Your task to perform on an android device: read, delete, or share a saved page in the chrome app Image 0: 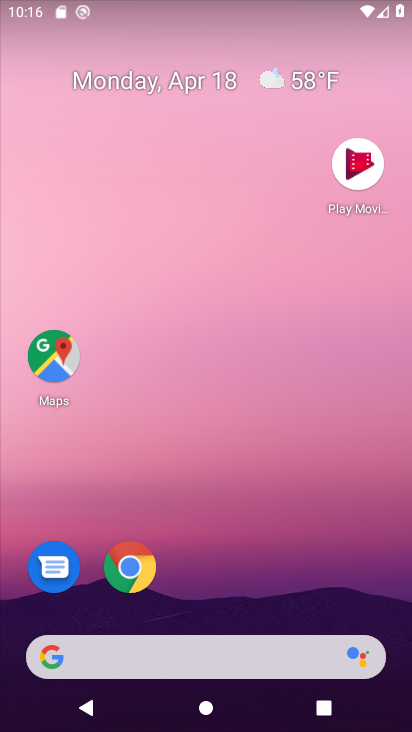
Step 0: click (138, 560)
Your task to perform on an android device: read, delete, or share a saved page in the chrome app Image 1: 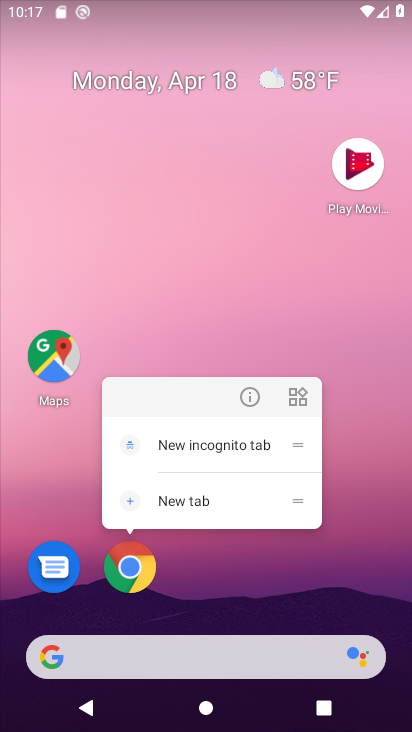
Step 1: click (196, 546)
Your task to perform on an android device: read, delete, or share a saved page in the chrome app Image 2: 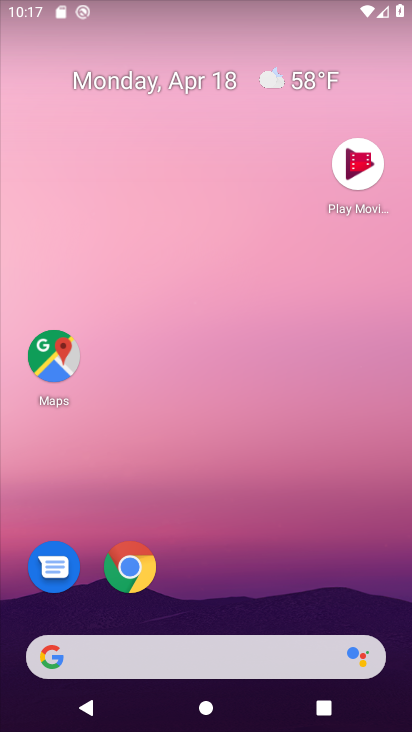
Step 2: click (136, 562)
Your task to perform on an android device: read, delete, or share a saved page in the chrome app Image 3: 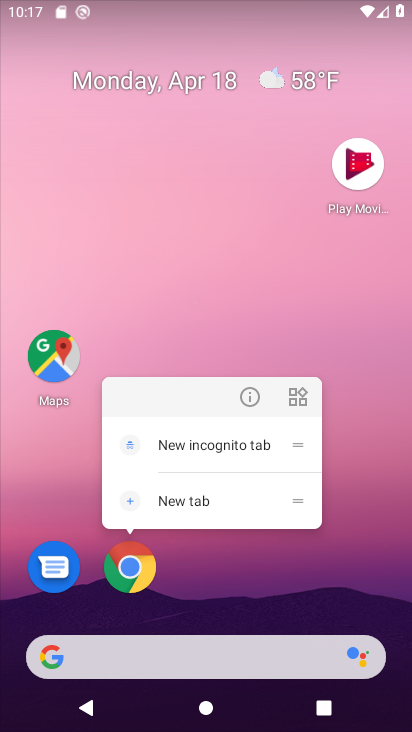
Step 3: click (255, 384)
Your task to perform on an android device: read, delete, or share a saved page in the chrome app Image 4: 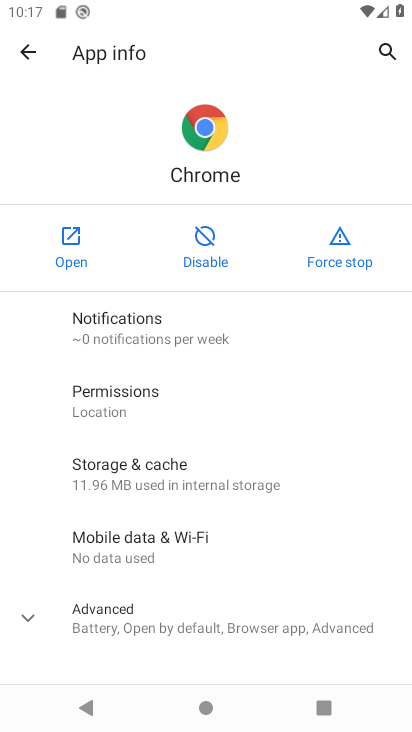
Step 4: click (71, 248)
Your task to perform on an android device: read, delete, or share a saved page in the chrome app Image 5: 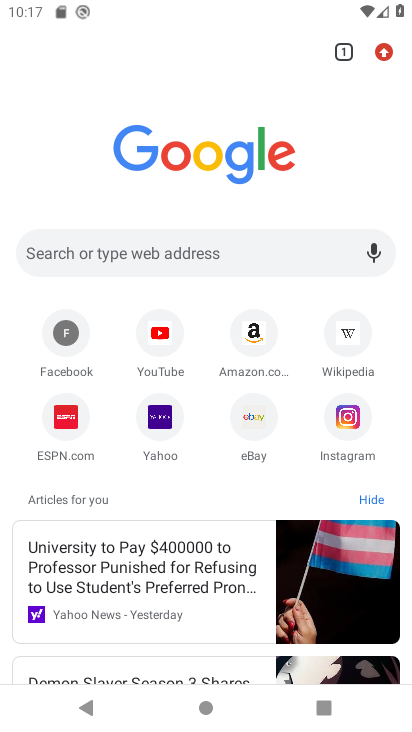
Step 5: click (389, 50)
Your task to perform on an android device: read, delete, or share a saved page in the chrome app Image 6: 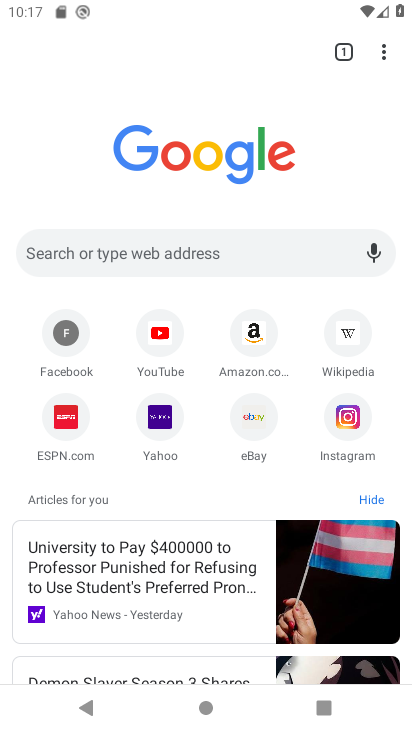
Step 6: click (387, 57)
Your task to perform on an android device: read, delete, or share a saved page in the chrome app Image 7: 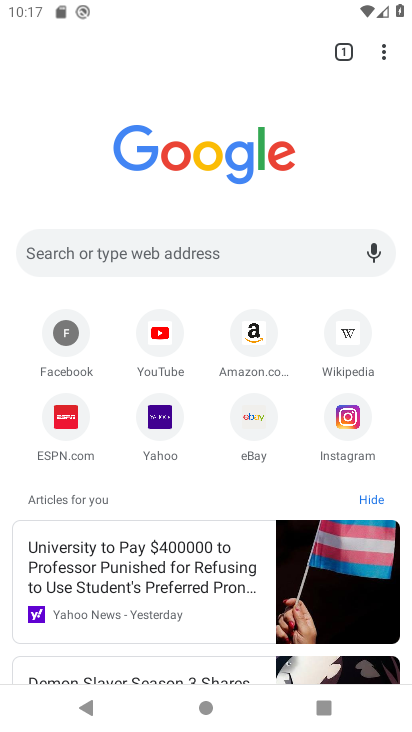
Step 7: click (379, 43)
Your task to perform on an android device: read, delete, or share a saved page in the chrome app Image 8: 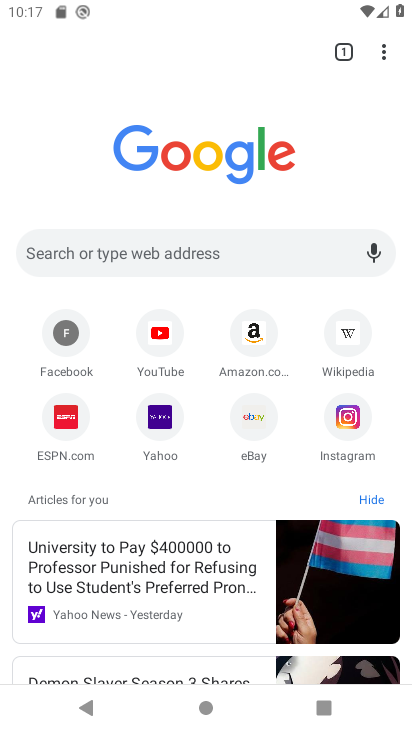
Step 8: click (391, 51)
Your task to perform on an android device: read, delete, or share a saved page in the chrome app Image 9: 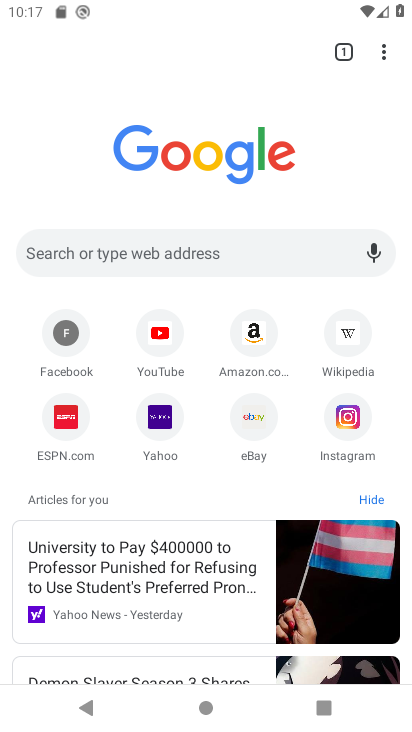
Step 9: click (384, 49)
Your task to perform on an android device: read, delete, or share a saved page in the chrome app Image 10: 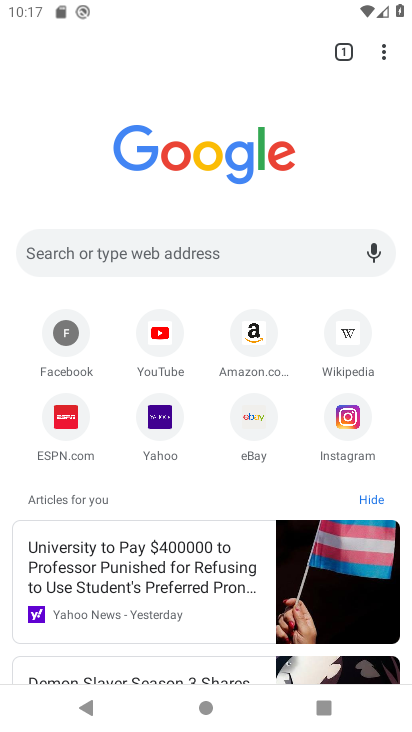
Step 10: task complete